Your task to perform on an android device: Show me productivity apps on the Play Store Image 0: 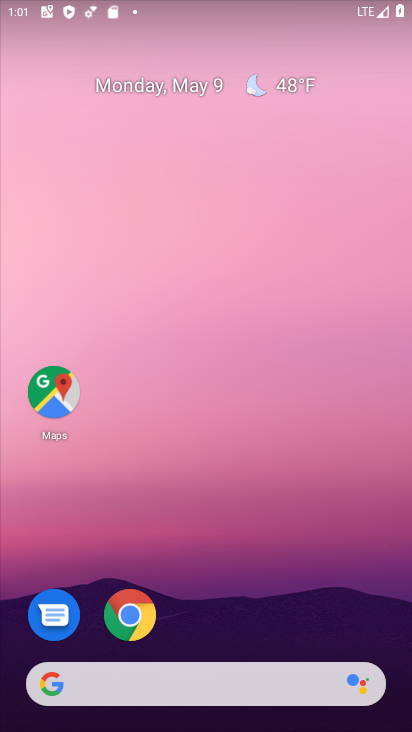
Step 0: drag from (205, 631) to (319, 16)
Your task to perform on an android device: Show me productivity apps on the Play Store Image 1: 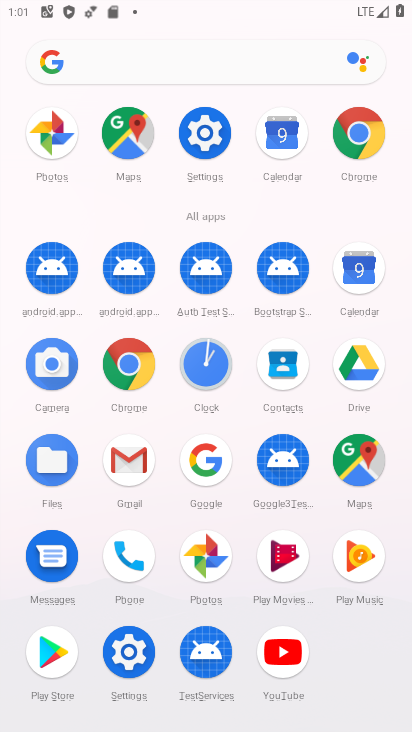
Step 1: click (54, 650)
Your task to perform on an android device: Show me productivity apps on the Play Store Image 2: 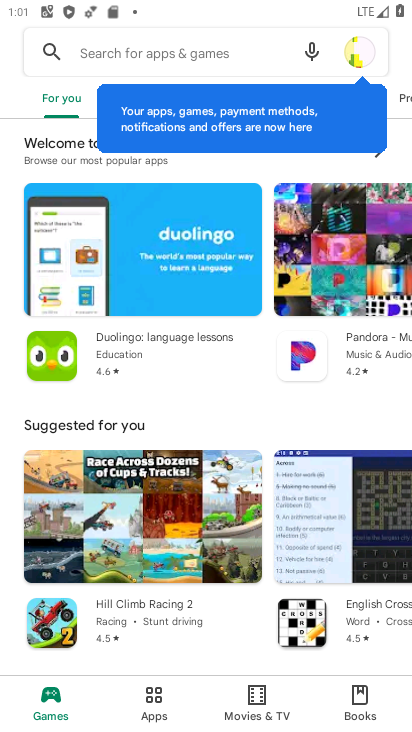
Step 2: click (147, 717)
Your task to perform on an android device: Show me productivity apps on the Play Store Image 3: 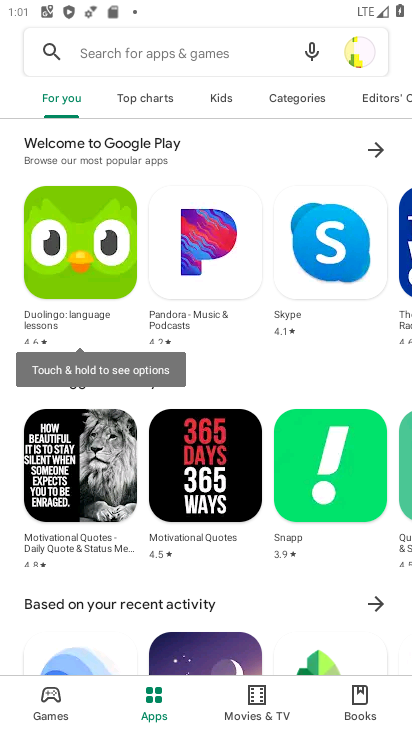
Step 3: click (283, 98)
Your task to perform on an android device: Show me productivity apps on the Play Store Image 4: 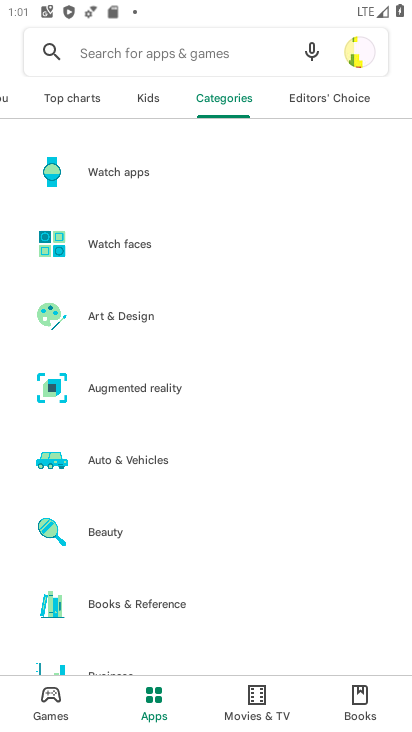
Step 4: drag from (197, 611) to (263, 103)
Your task to perform on an android device: Show me productivity apps on the Play Store Image 5: 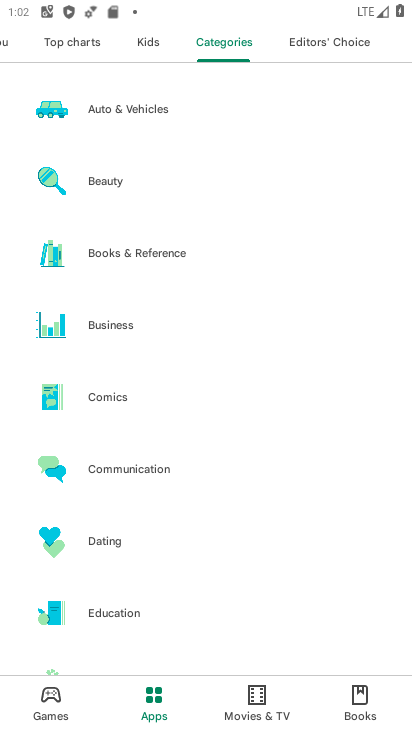
Step 5: drag from (195, 617) to (245, 79)
Your task to perform on an android device: Show me productivity apps on the Play Store Image 6: 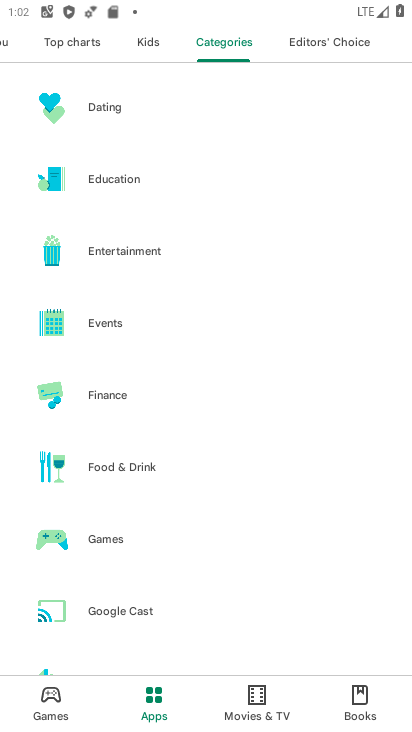
Step 6: drag from (171, 599) to (241, 69)
Your task to perform on an android device: Show me productivity apps on the Play Store Image 7: 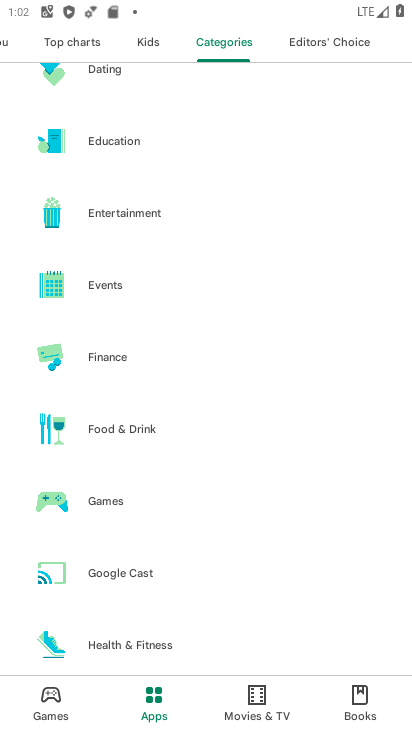
Step 7: drag from (211, 591) to (219, 23)
Your task to perform on an android device: Show me productivity apps on the Play Store Image 8: 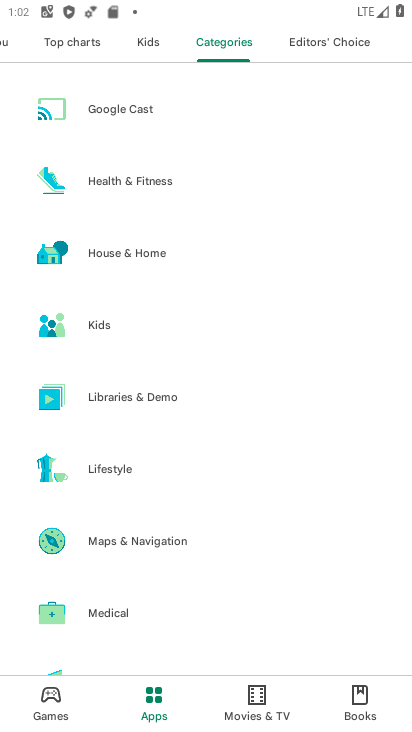
Step 8: drag from (209, 606) to (231, 127)
Your task to perform on an android device: Show me productivity apps on the Play Store Image 9: 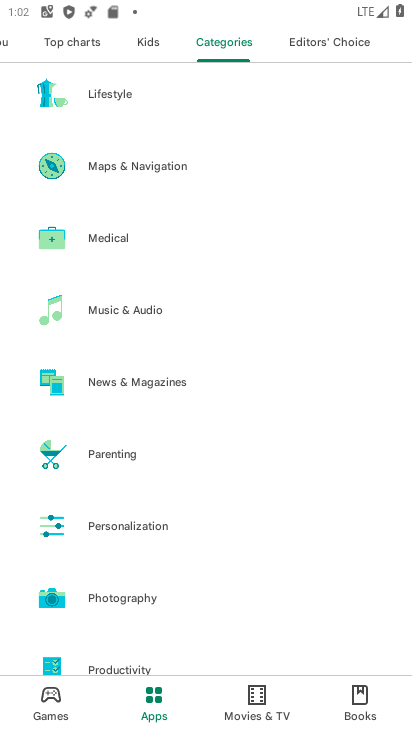
Step 9: drag from (218, 604) to (268, 191)
Your task to perform on an android device: Show me productivity apps on the Play Store Image 10: 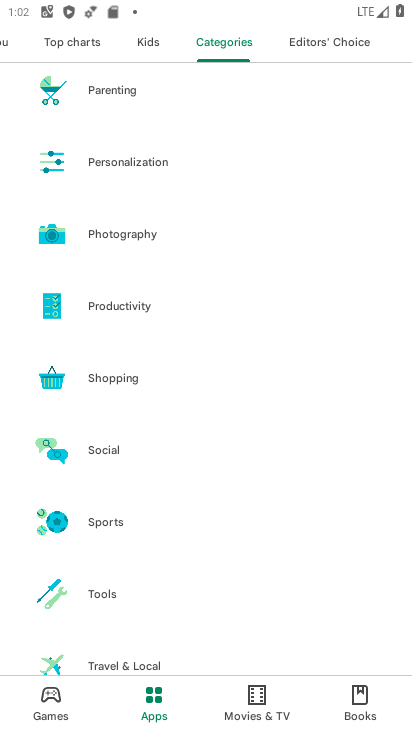
Step 10: click (110, 306)
Your task to perform on an android device: Show me productivity apps on the Play Store Image 11: 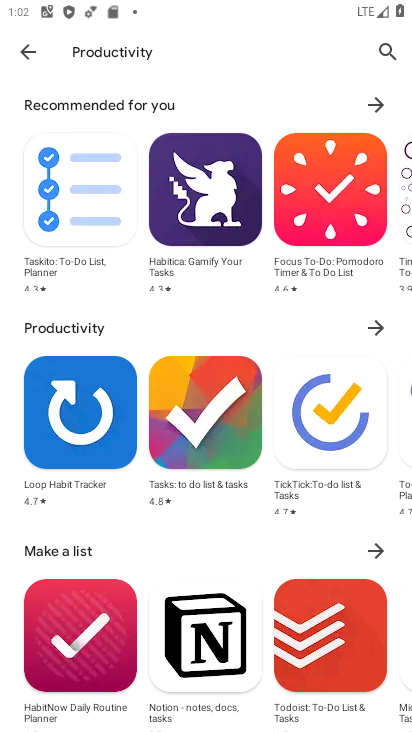
Step 11: task complete